Your task to perform on an android device: toggle data saver in the chrome app Image 0: 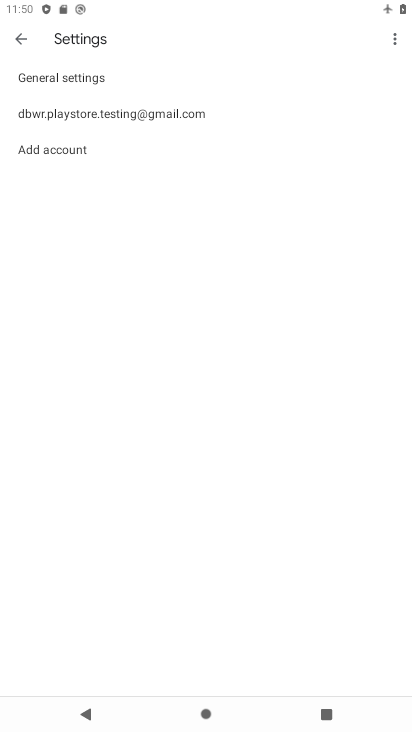
Step 0: press home button
Your task to perform on an android device: toggle data saver in the chrome app Image 1: 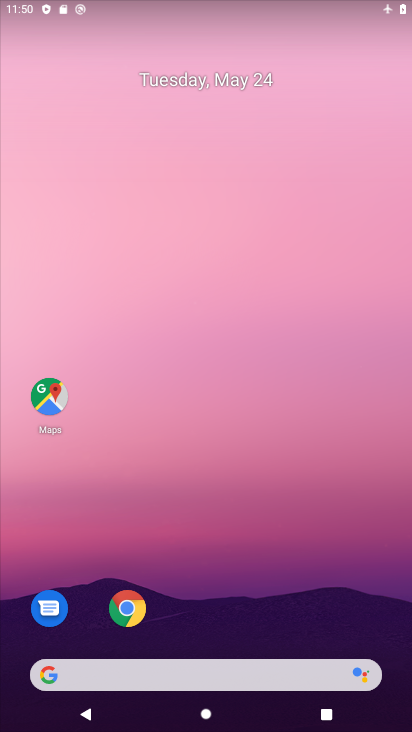
Step 1: click (120, 610)
Your task to perform on an android device: toggle data saver in the chrome app Image 2: 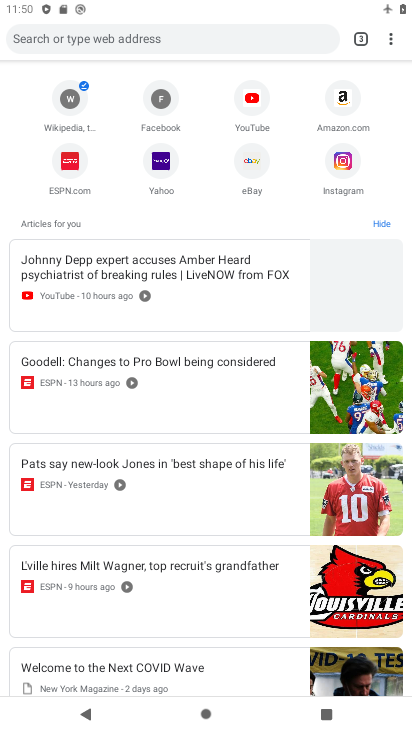
Step 2: click (398, 38)
Your task to perform on an android device: toggle data saver in the chrome app Image 3: 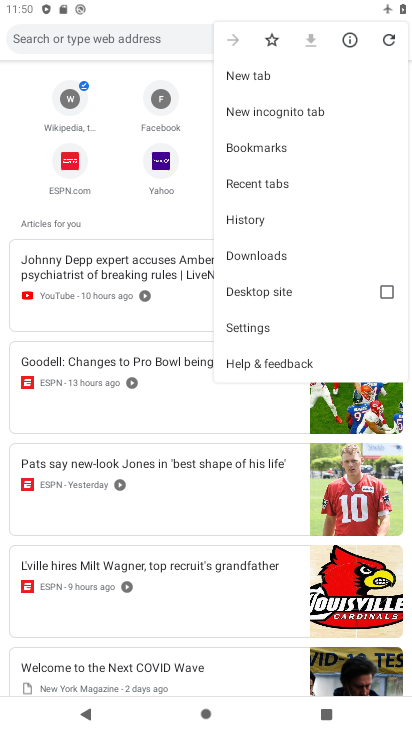
Step 3: click (264, 331)
Your task to perform on an android device: toggle data saver in the chrome app Image 4: 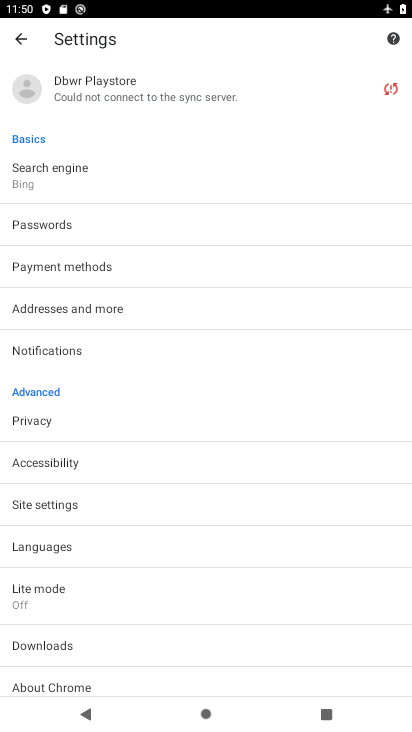
Step 4: click (134, 601)
Your task to perform on an android device: toggle data saver in the chrome app Image 5: 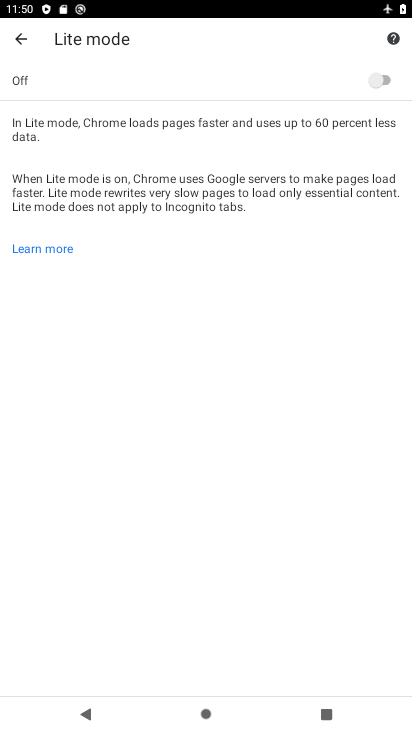
Step 5: click (375, 82)
Your task to perform on an android device: toggle data saver in the chrome app Image 6: 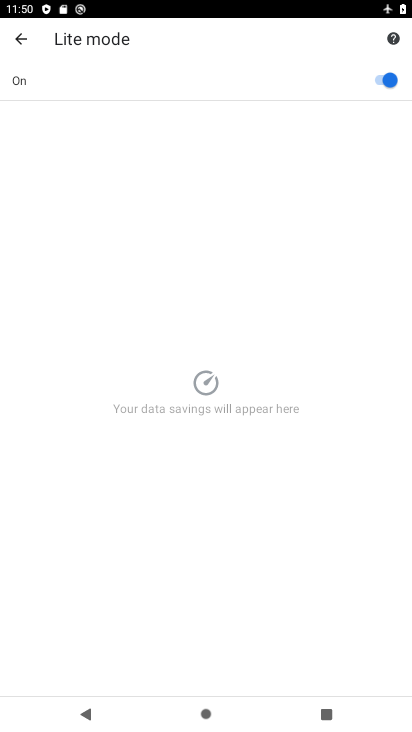
Step 6: task complete